Your task to perform on an android device: add a contact in the contacts app Image 0: 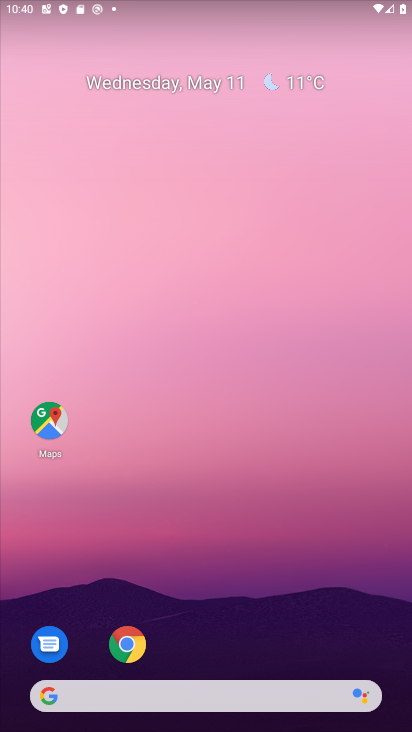
Step 0: drag from (220, 645) to (235, 84)
Your task to perform on an android device: add a contact in the contacts app Image 1: 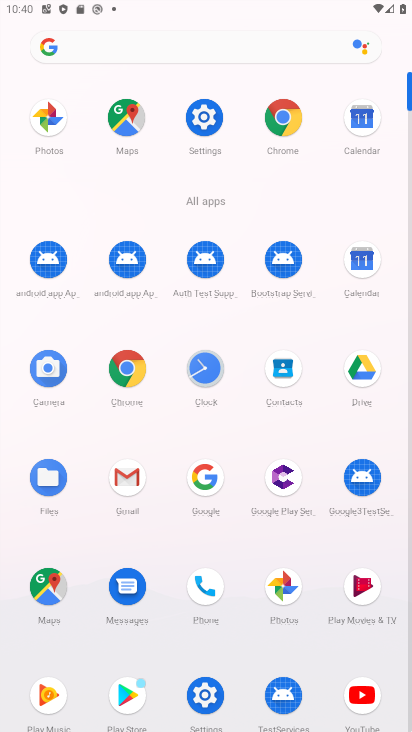
Step 1: click (284, 361)
Your task to perform on an android device: add a contact in the contacts app Image 2: 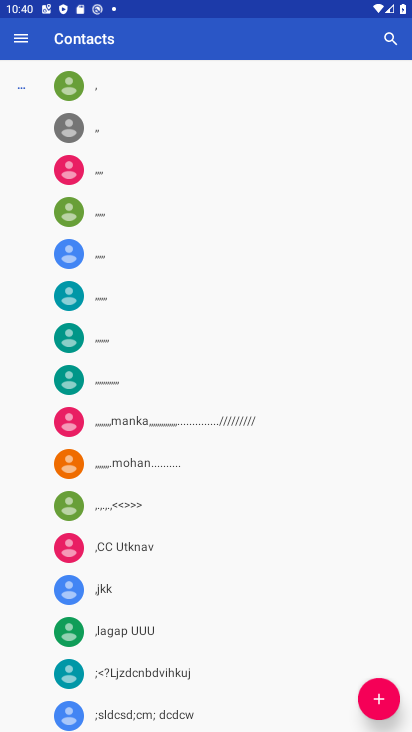
Step 2: click (377, 695)
Your task to perform on an android device: add a contact in the contacts app Image 3: 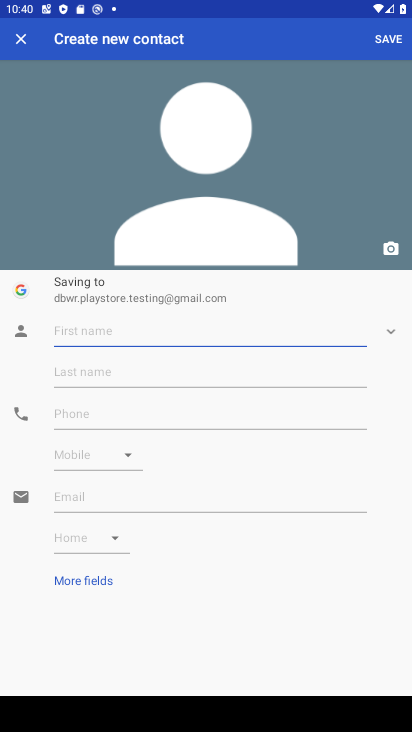
Step 3: type "vbcxcxgf"
Your task to perform on an android device: add a contact in the contacts app Image 4: 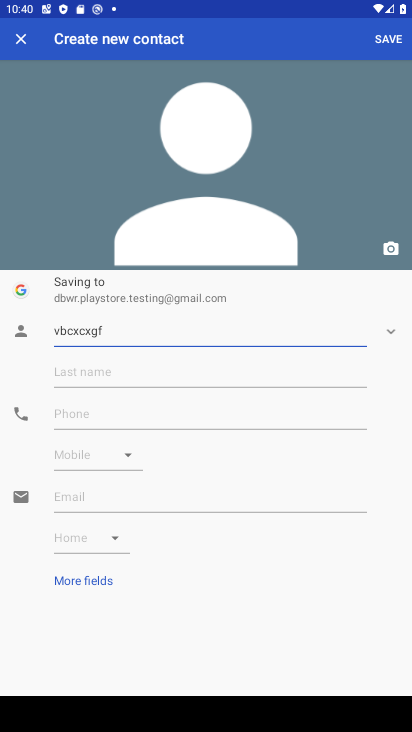
Step 4: click (387, 35)
Your task to perform on an android device: add a contact in the contacts app Image 5: 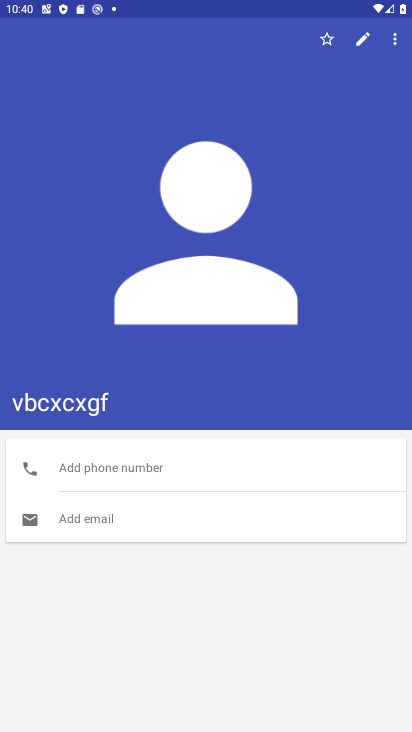
Step 5: task complete